Your task to perform on an android device: See recent photos Image 0: 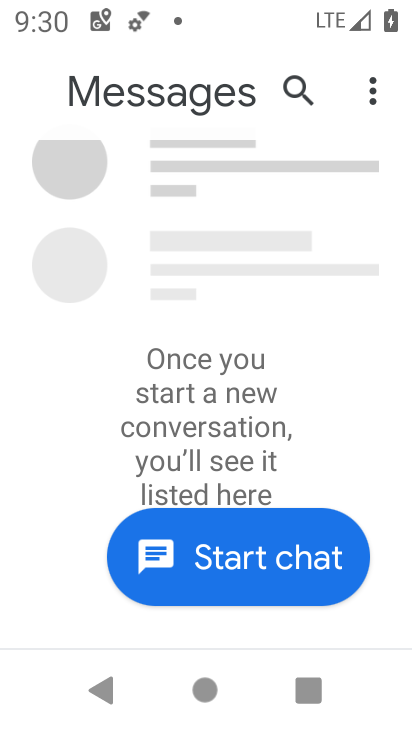
Step 0: press home button
Your task to perform on an android device: See recent photos Image 1: 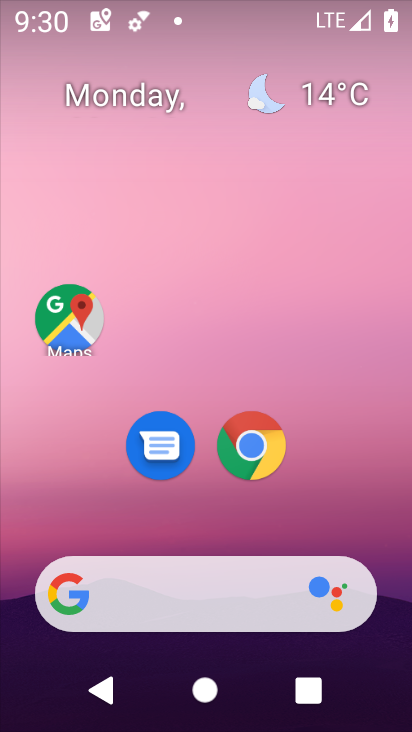
Step 1: drag from (208, 515) to (252, 75)
Your task to perform on an android device: See recent photos Image 2: 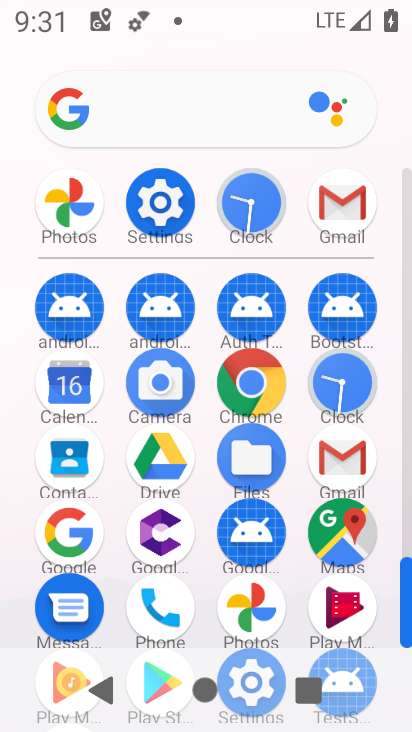
Step 2: click (244, 598)
Your task to perform on an android device: See recent photos Image 3: 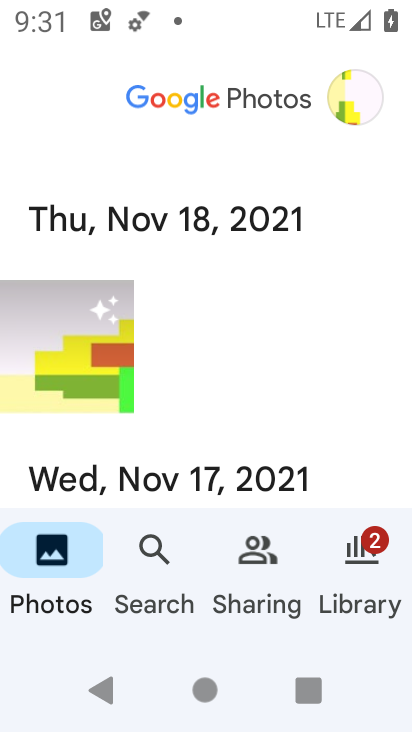
Step 3: task complete